Your task to perform on an android device: remove spam from my inbox in the gmail app Image 0: 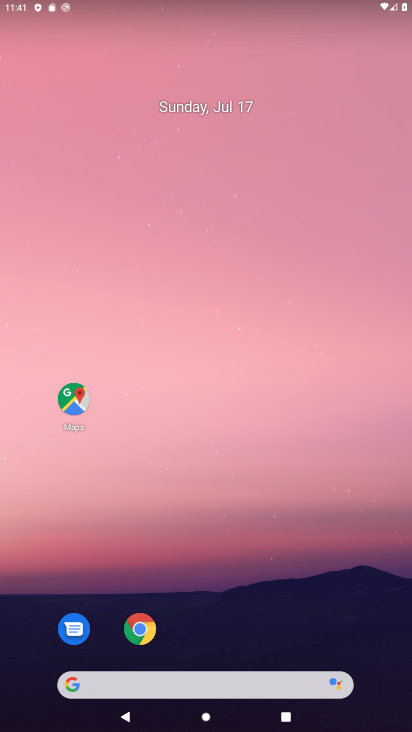
Step 0: press home button
Your task to perform on an android device: remove spam from my inbox in the gmail app Image 1: 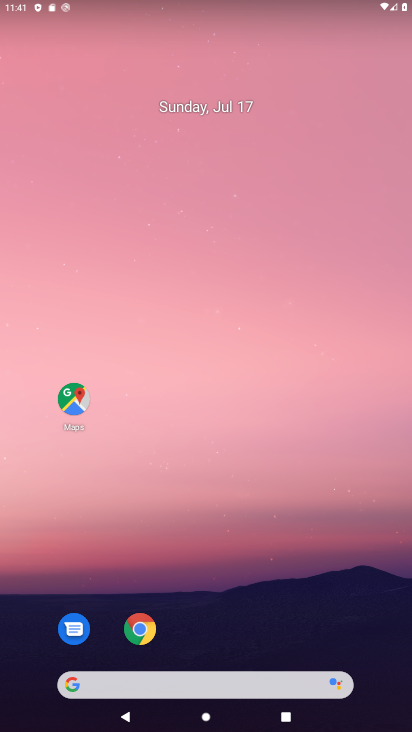
Step 1: drag from (280, 684) to (255, 42)
Your task to perform on an android device: remove spam from my inbox in the gmail app Image 2: 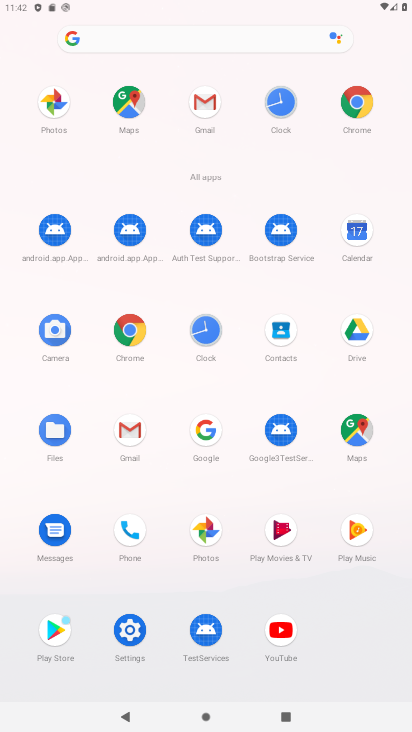
Step 2: press home button
Your task to perform on an android device: remove spam from my inbox in the gmail app Image 3: 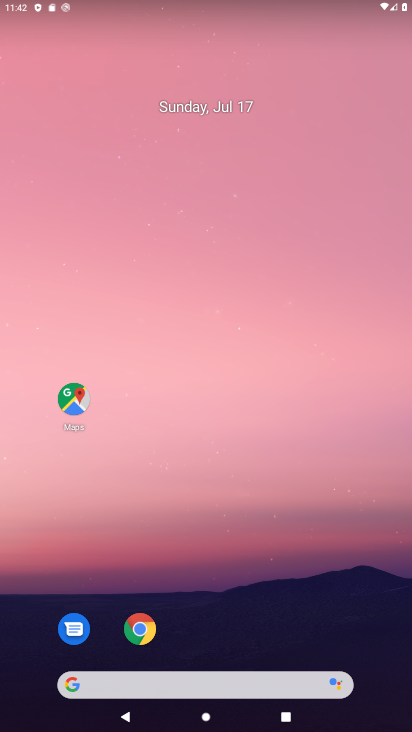
Step 3: drag from (275, 492) to (322, 283)
Your task to perform on an android device: remove spam from my inbox in the gmail app Image 4: 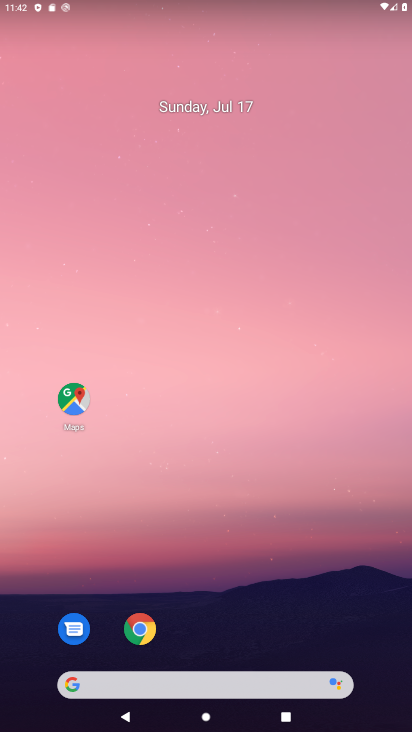
Step 4: drag from (284, 722) to (238, 21)
Your task to perform on an android device: remove spam from my inbox in the gmail app Image 5: 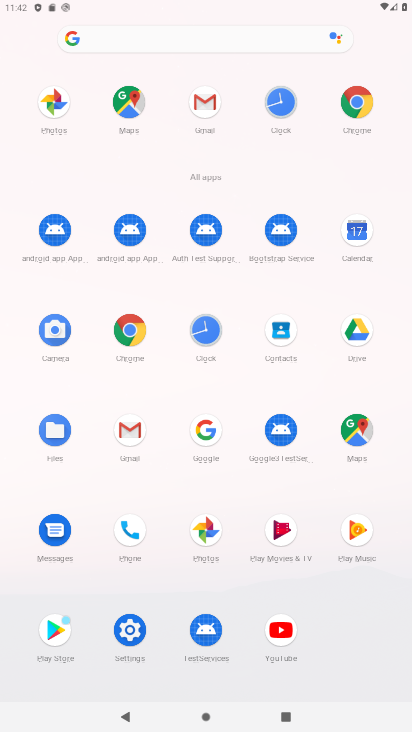
Step 5: click (135, 417)
Your task to perform on an android device: remove spam from my inbox in the gmail app Image 6: 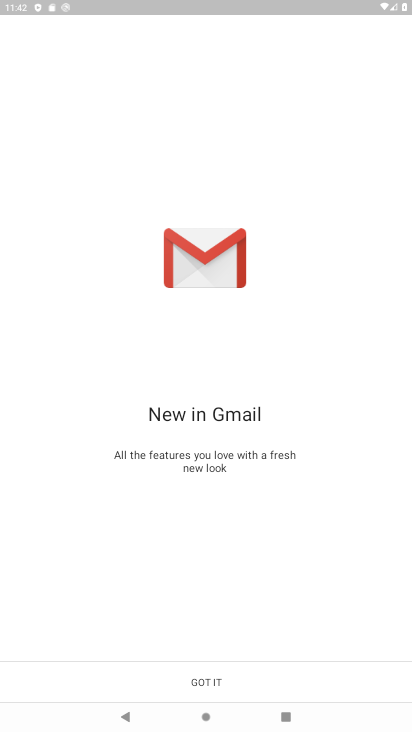
Step 6: click (227, 682)
Your task to perform on an android device: remove spam from my inbox in the gmail app Image 7: 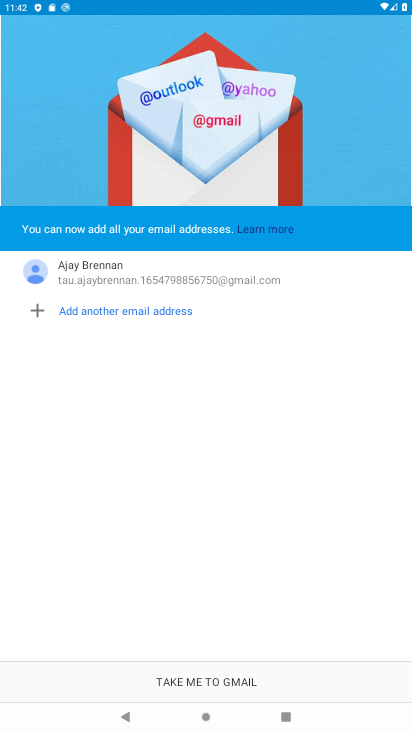
Step 7: click (227, 682)
Your task to perform on an android device: remove spam from my inbox in the gmail app Image 8: 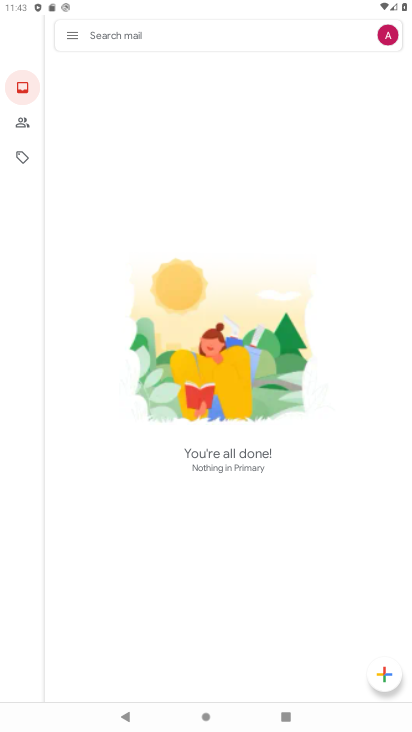
Step 8: task complete